Your task to perform on an android device: Open Reddit.com Image 0: 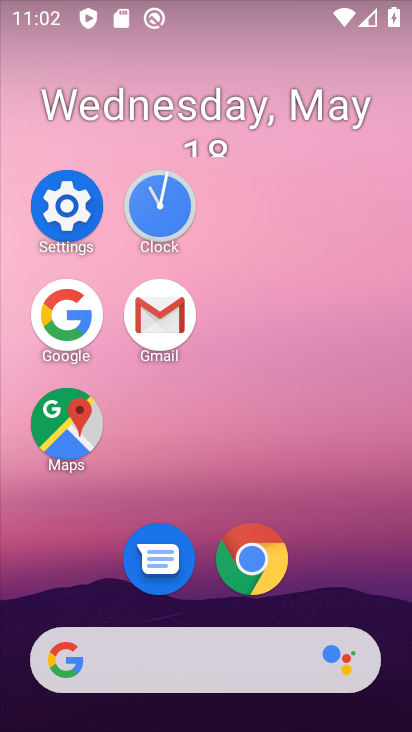
Step 0: click (237, 542)
Your task to perform on an android device: Open Reddit.com Image 1: 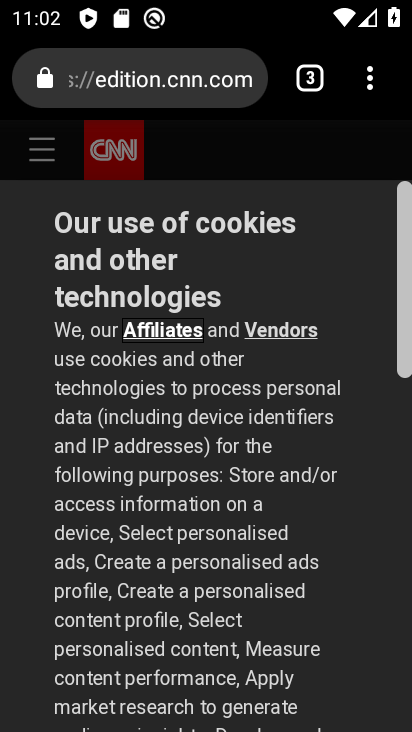
Step 1: click (316, 87)
Your task to perform on an android device: Open Reddit.com Image 2: 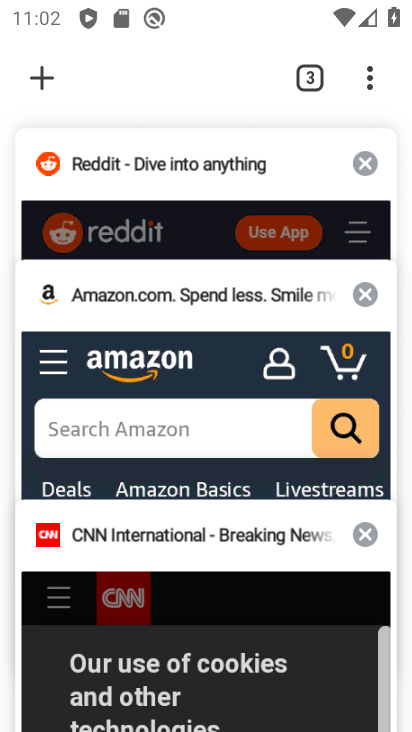
Step 2: click (147, 156)
Your task to perform on an android device: Open Reddit.com Image 3: 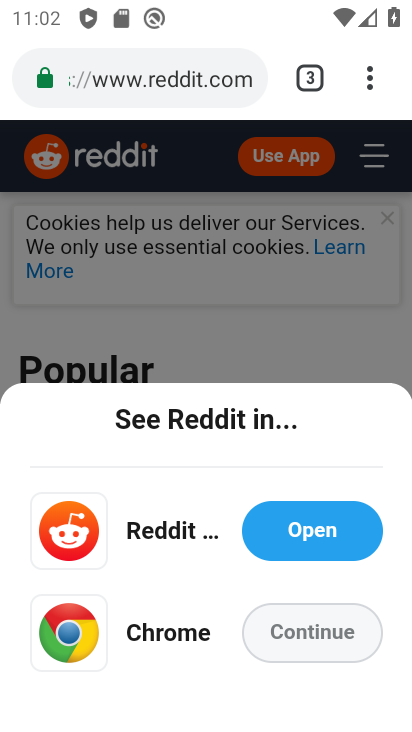
Step 3: task complete